Your task to perform on an android device: open app "Fetch Rewards" Image 0: 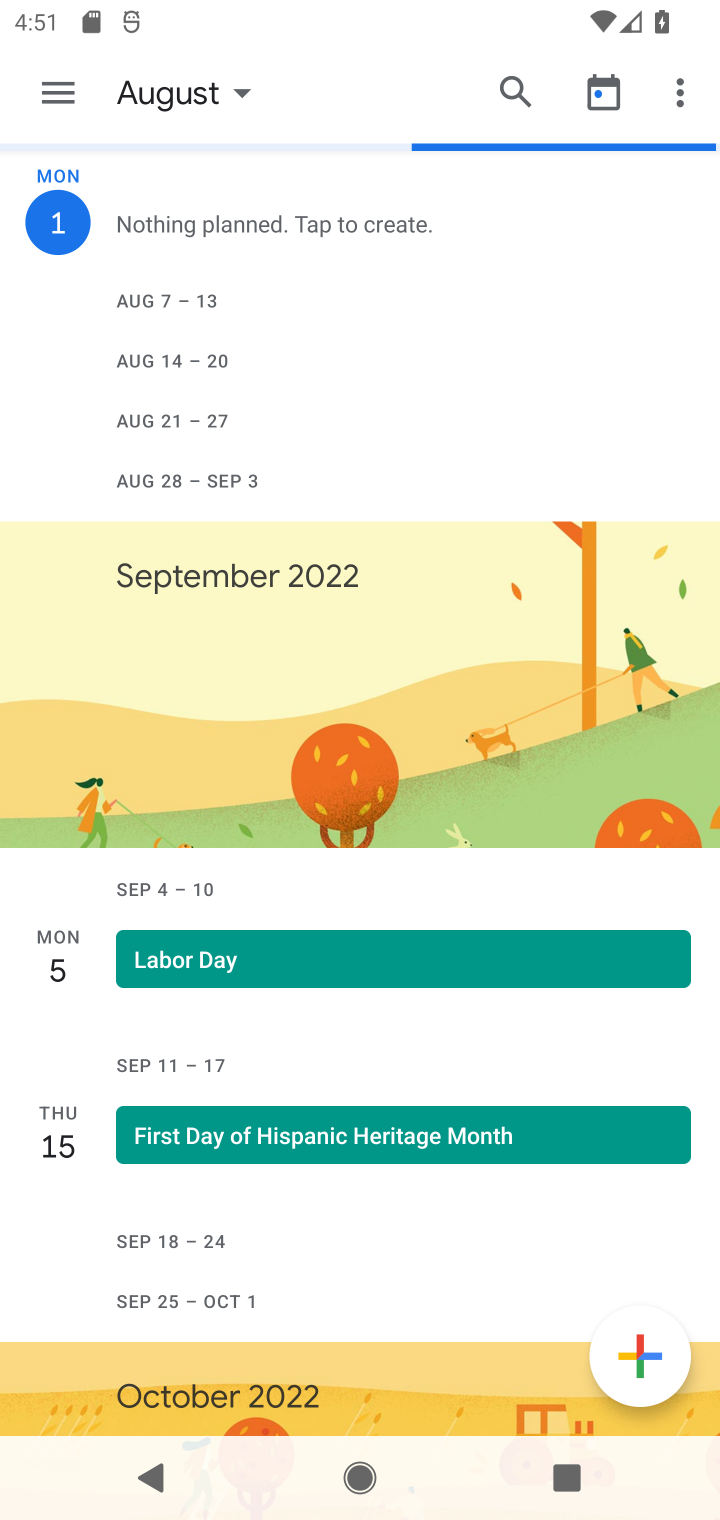
Step 0: press home button
Your task to perform on an android device: open app "Fetch Rewards" Image 1: 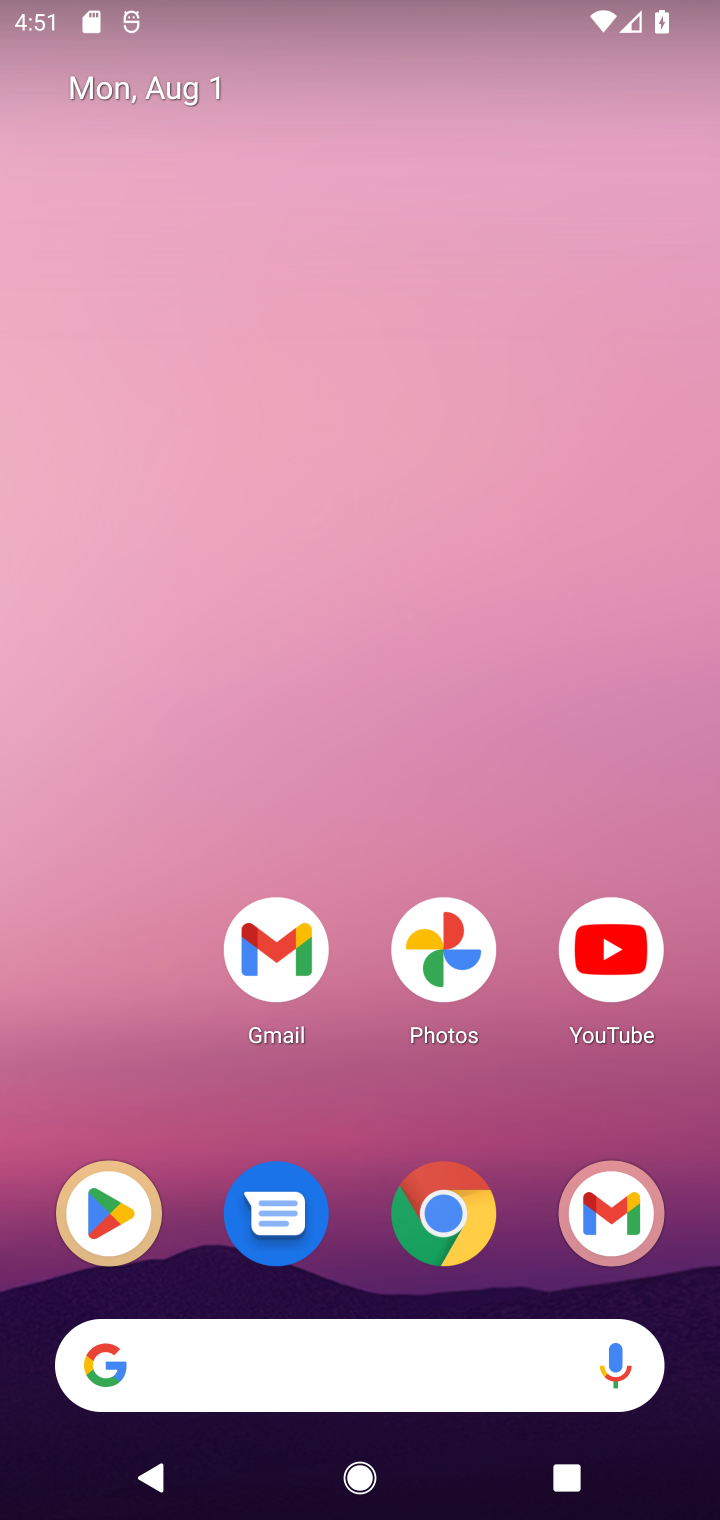
Step 1: drag from (387, 691) to (452, 1)
Your task to perform on an android device: open app "Fetch Rewards" Image 2: 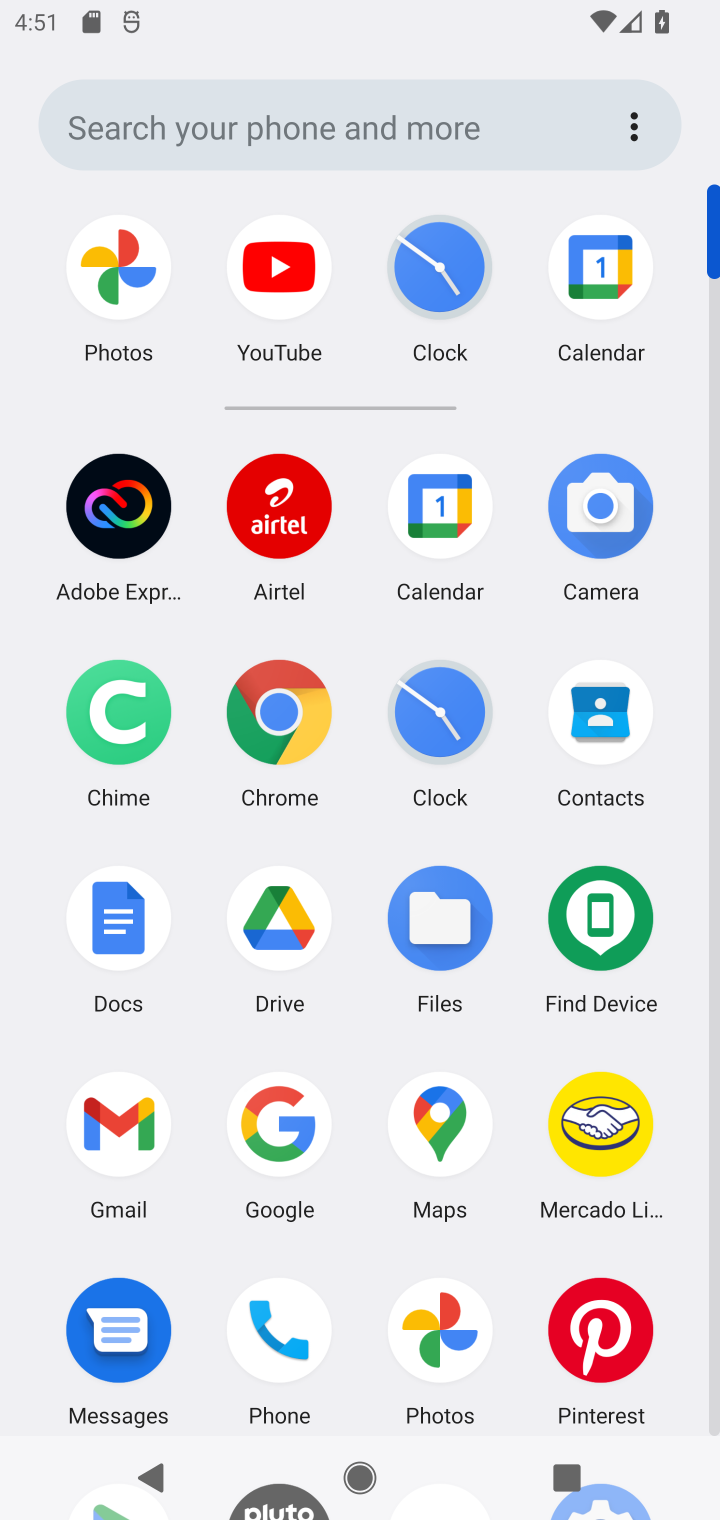
Step 2: drag from (493, 1230) to (524, 449)
Your task to perform on an android device: open app "Fetch Rewards" Image 3: 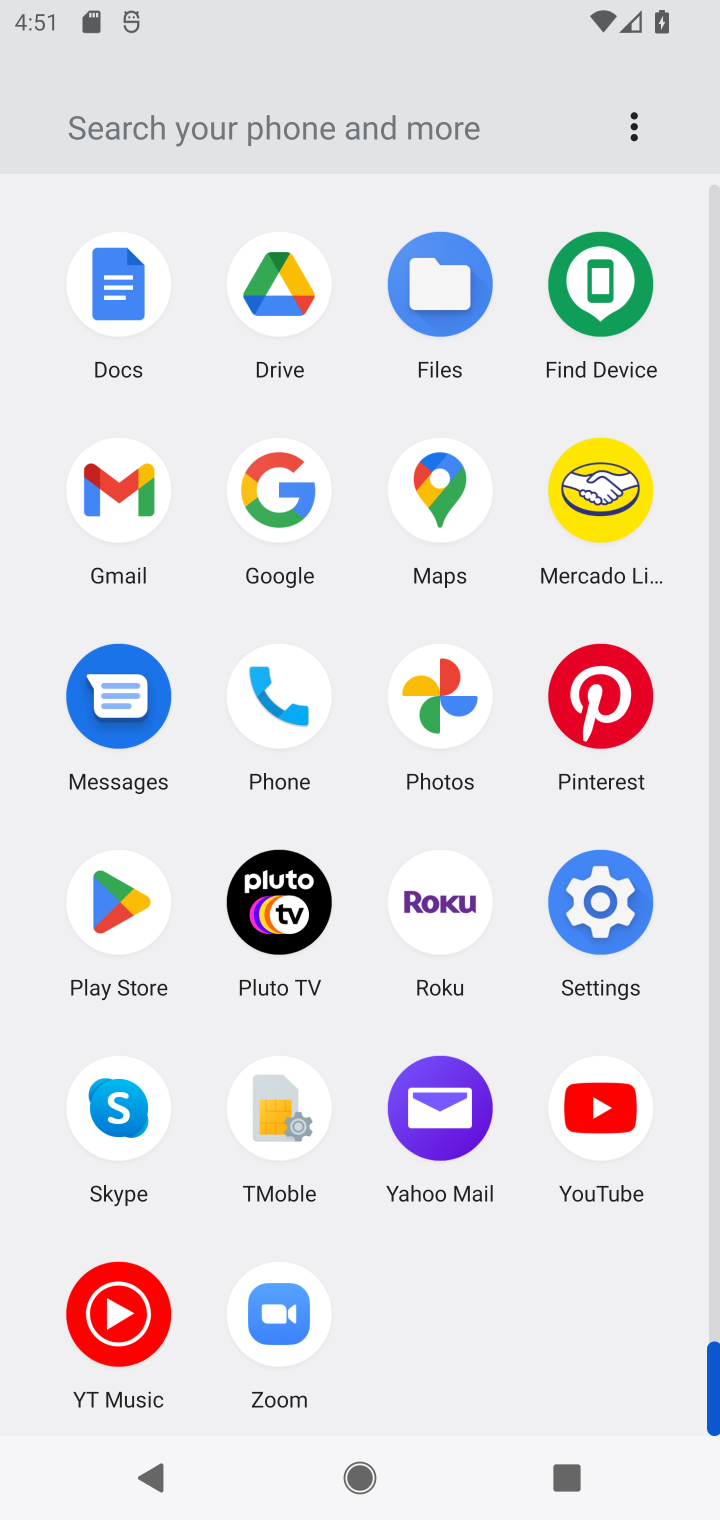
Step 3: click (95, 875)
Your task to perform on an android device: open app "Fetch Rewards" Image 4: 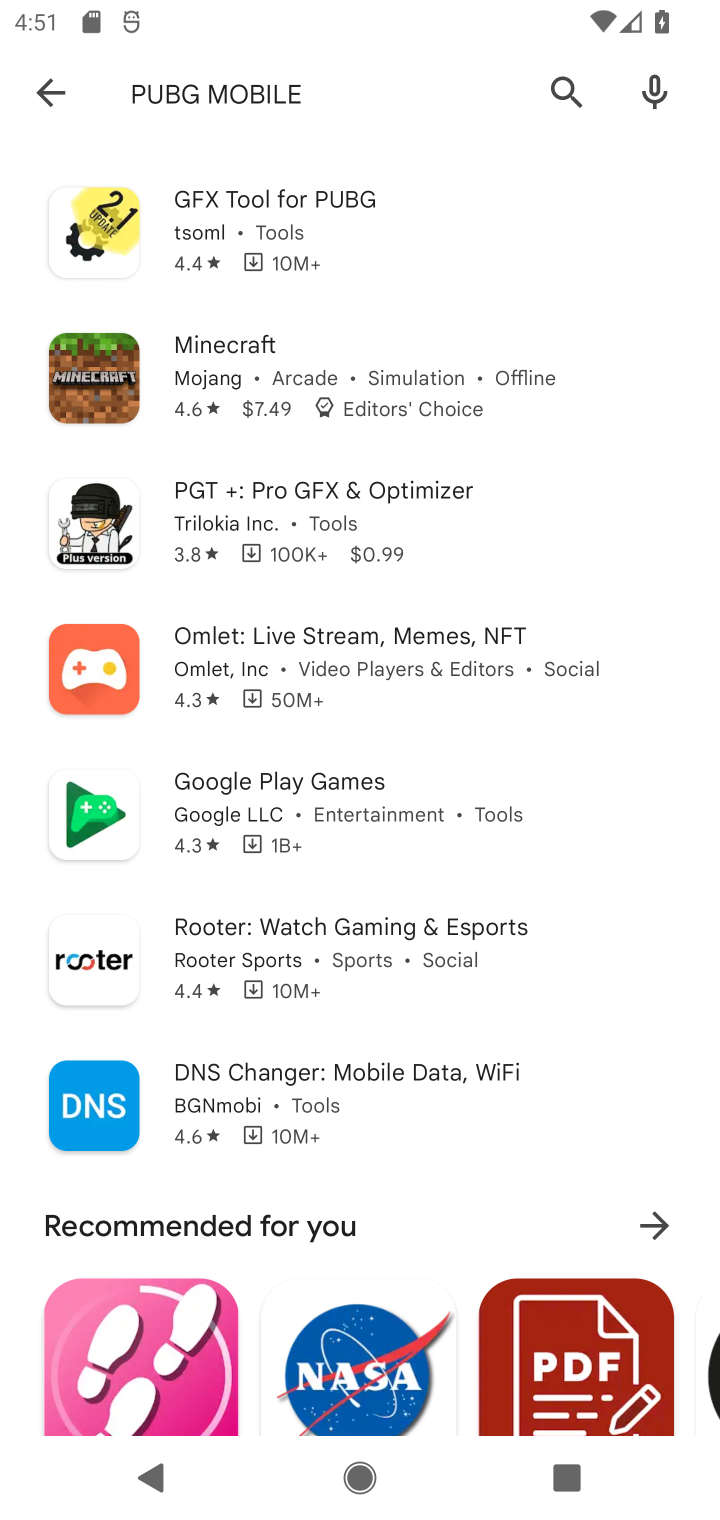
Step 4: click (595, 70)
Your task to perform on an android device: open app "Fetch Rewards" Image 5: 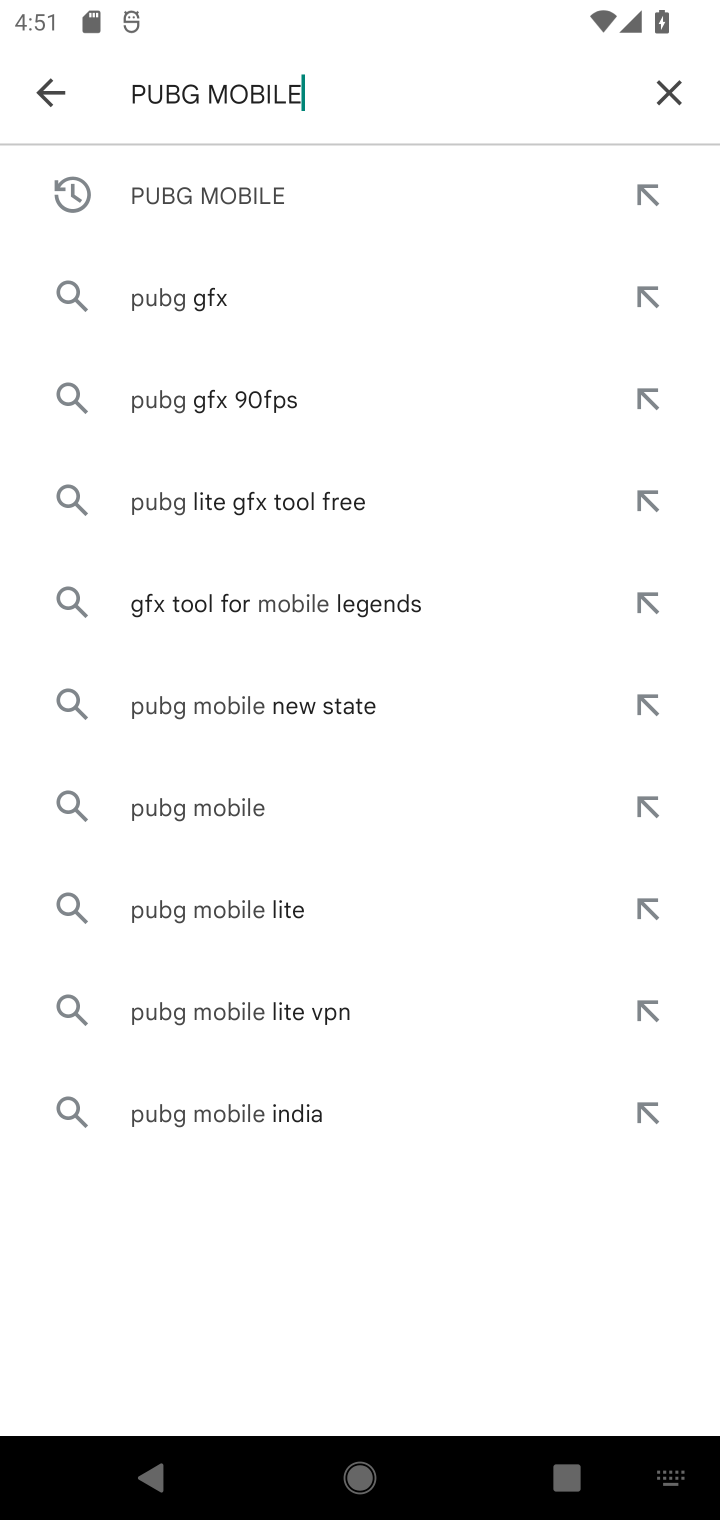
Step 5: click (695, 91)
Your task to perform on an android device: open app "Fetch Rewards" Image 6: 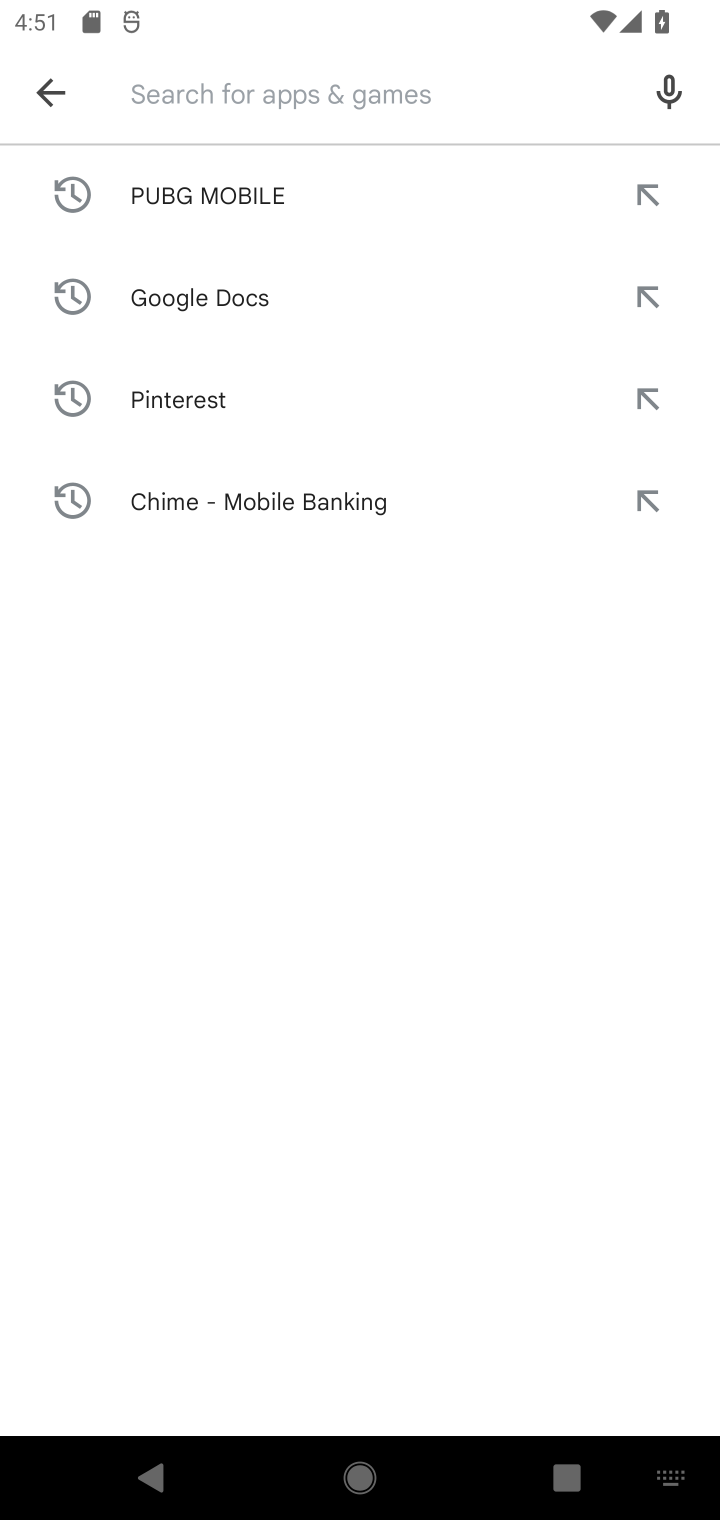
Step 6: type "Fetch Rewards"
Your task to perform on an android device: open app "Fetch Rewards" Image 7: 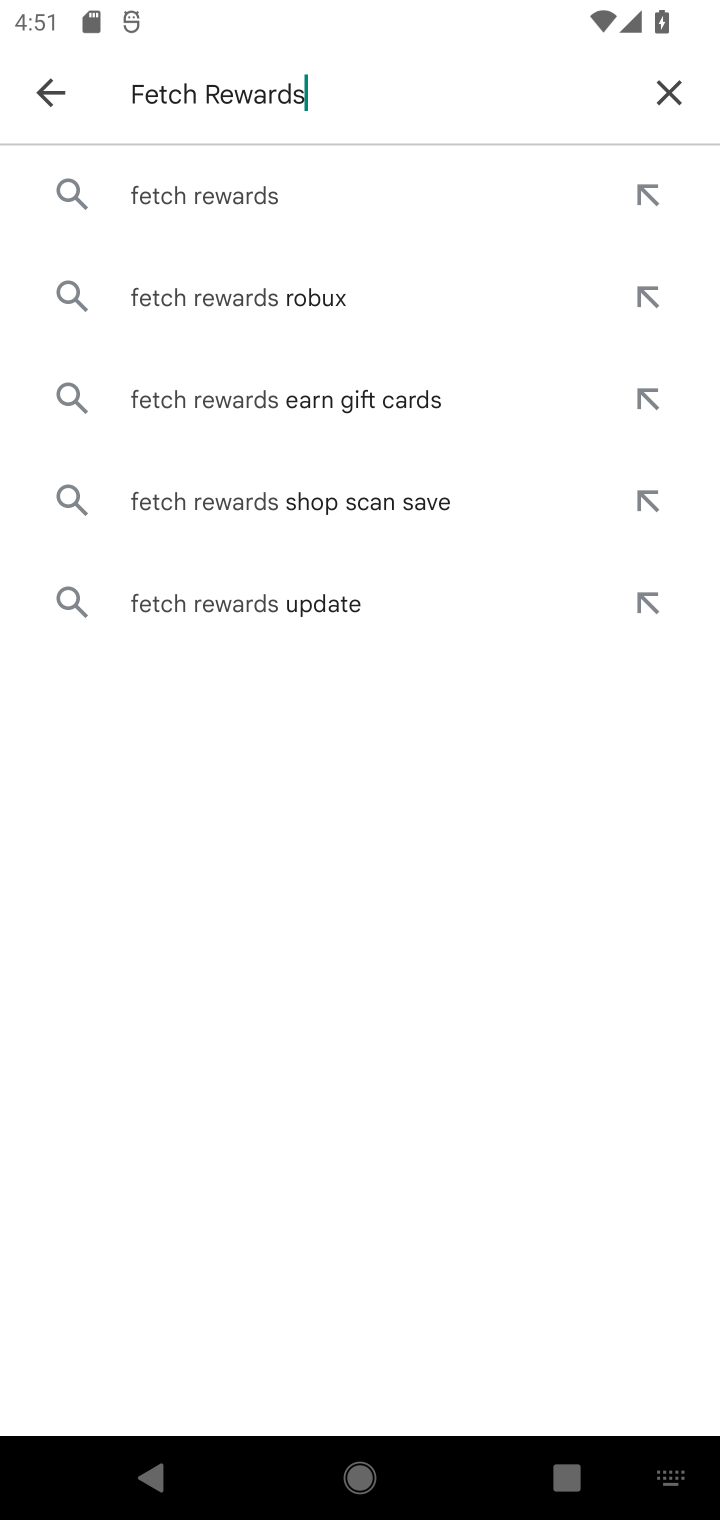
Step 7: press enter
Your task to perform on an android device: open app "Fetch Rewards" Image 8: 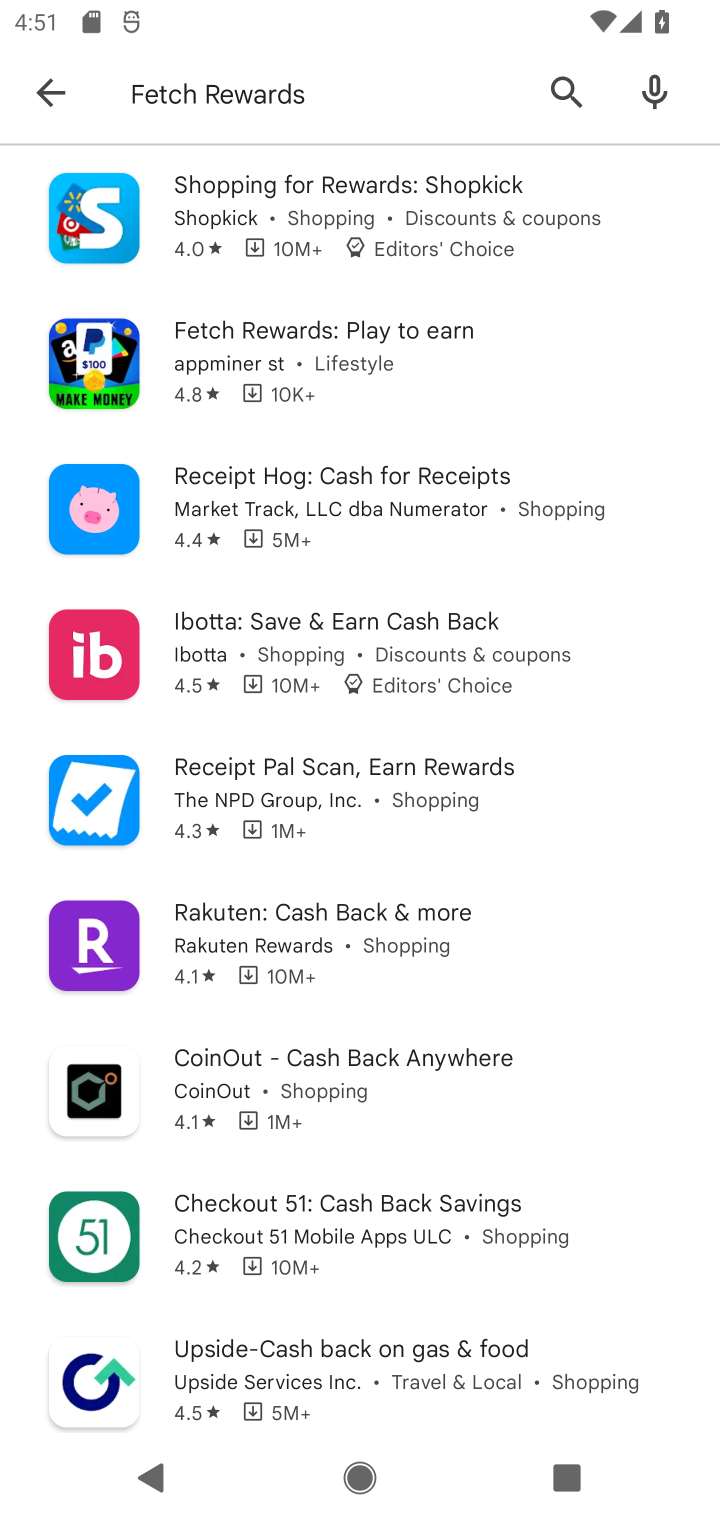
Step 8: task complete